Your task to perform on an android device: snooze an email in the gmail app Image 0: 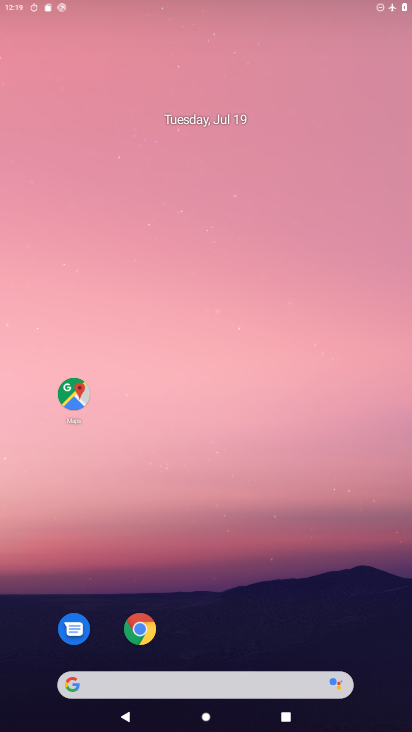
Step 0: drag from (332, 622) to (311, 85)
Your task to perform on an android device: snooze an email in the gmail app Image 1: 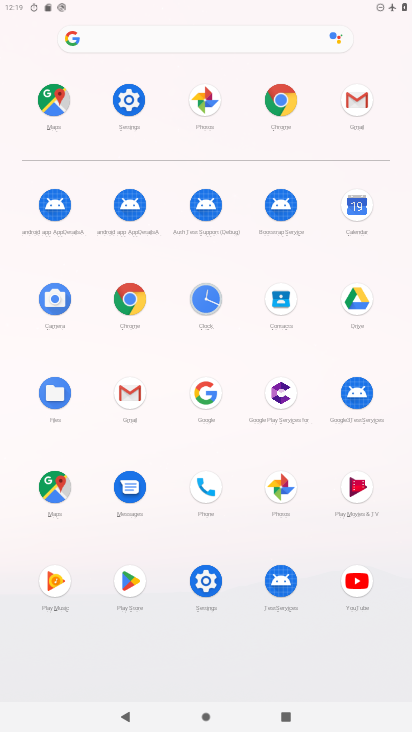
Step 1: click (363, 102)
Your task to perform on an android device: snooze an email in the gmail app Image 2: 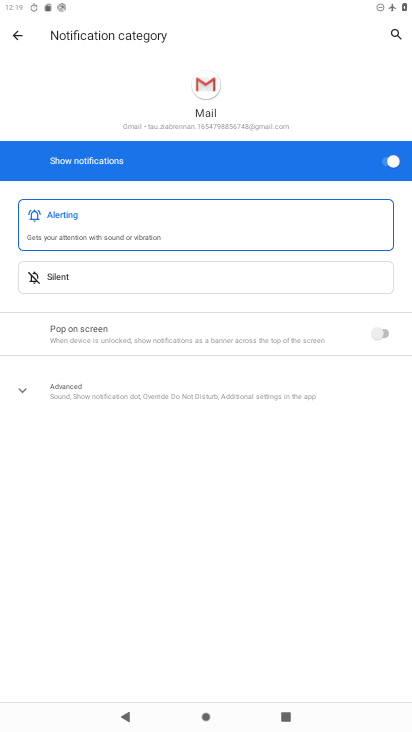
Step 2: click (21, 35)
Your task to perform on an android device: snooze an email in the gmail app Image 3: 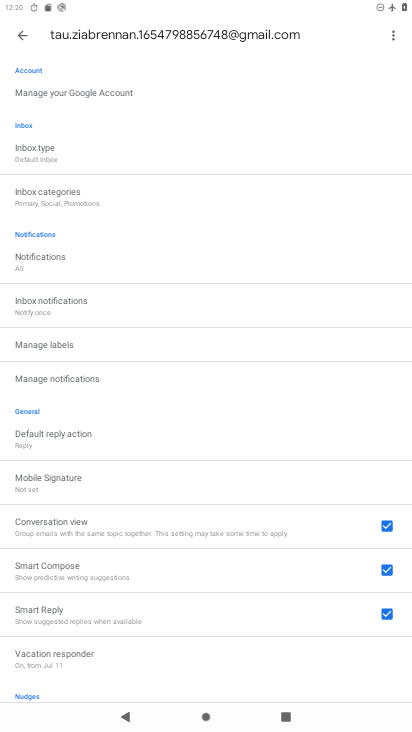
Step 3: click (16, 31)
Your task to perform on an android device: snooze an email in the gmail app Image 4: 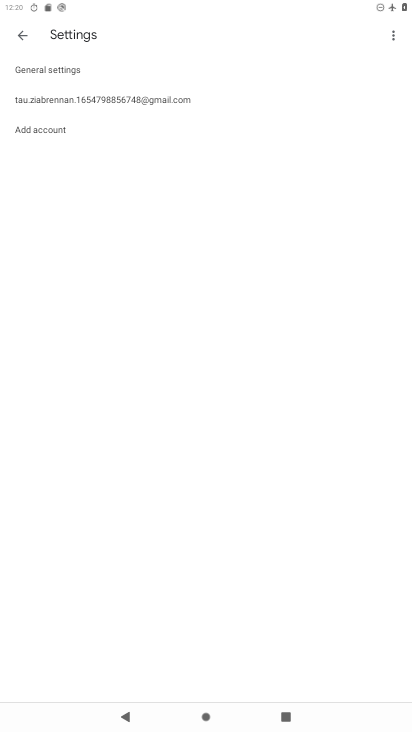
Step 4: click (16, 31)
Your task to perform on an android device: snooze an email in the gmail app Image 5: 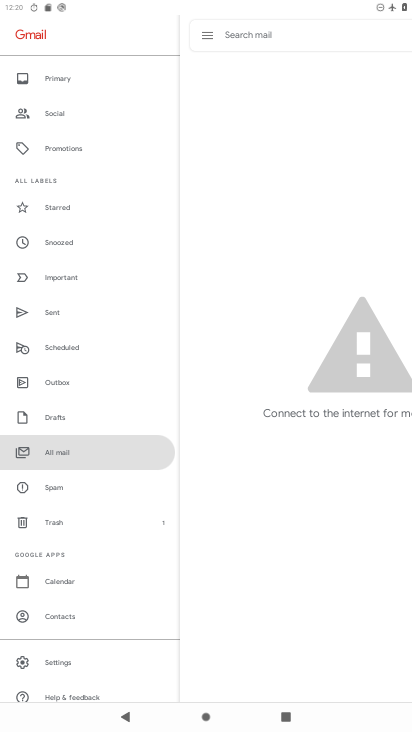
Step 5: click (73, 82)
Your task to perform on an android device: snooze an email in the gmail app Image 6: 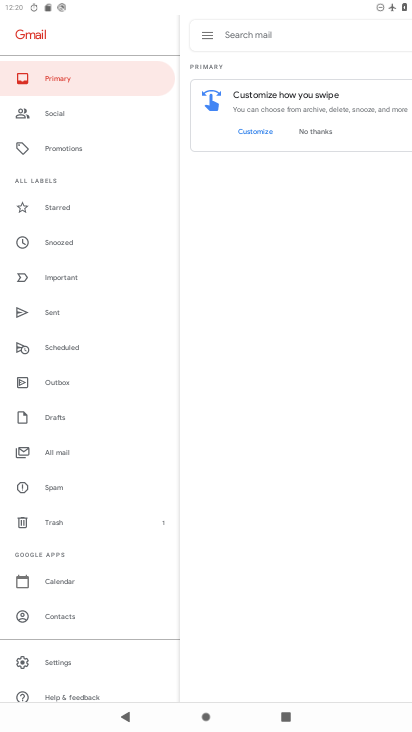
Step 6: task complete